Your task to perform on an android device: remove spam from my inbox in the gmail app Image 0: 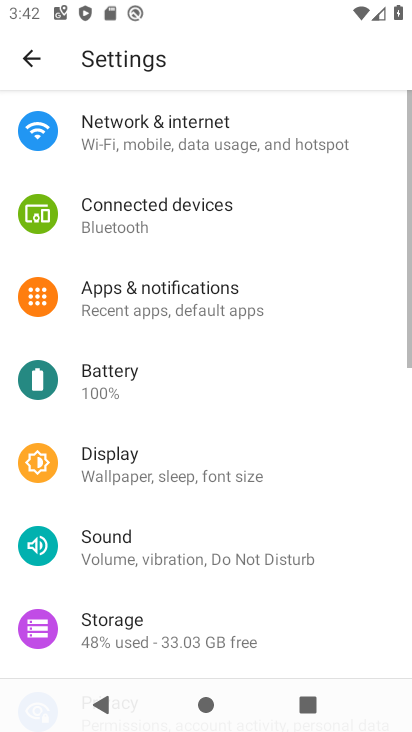
Step 0: press home button
Your task to perform on an android device: remove spam from my inbox in the gmail app Image 1: 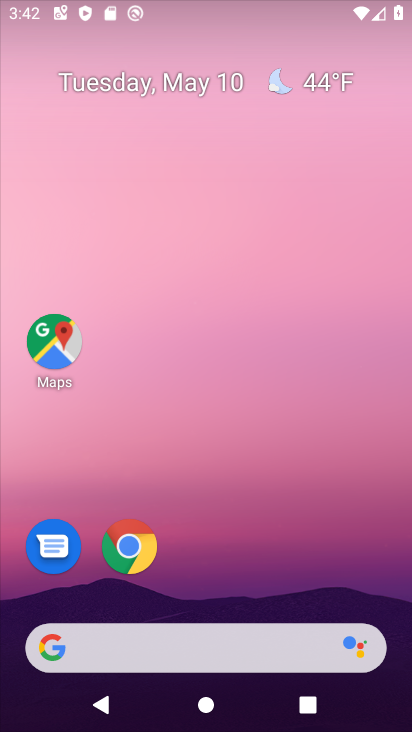
Step 1: drag from (198, 551) to (296, 42)
Your task to perform on an android device: remove spam from my inbox in the gmail app Image 2: 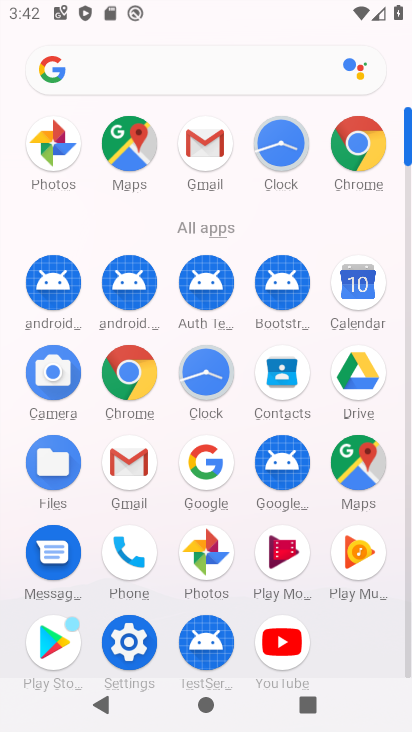
Step 2: click (191, 131)
Your task to perform on an android device: remove spam from my inbox in the gmail app Image 3: 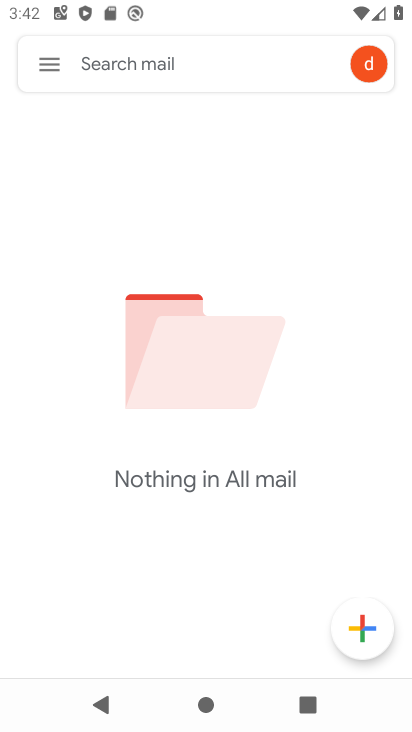
Step 3: click (35, 55)
Your task to perform on an android device: remove spam from my inbox in the gmail app Image 4: 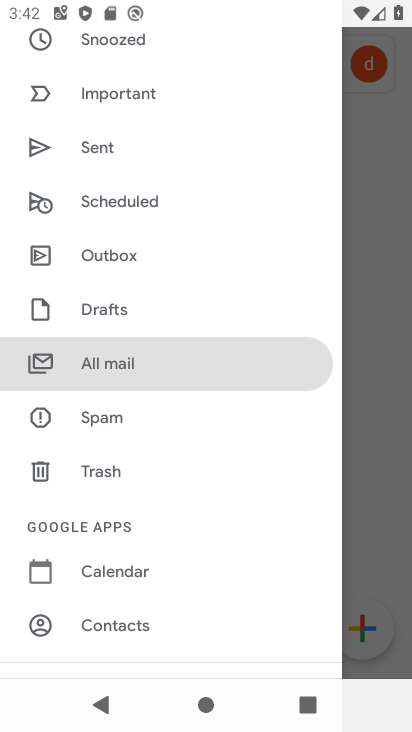
Step 4: click (111, 418)
Your task to perform on an android device: remove spam from my inbox in the gmail app Image 5: 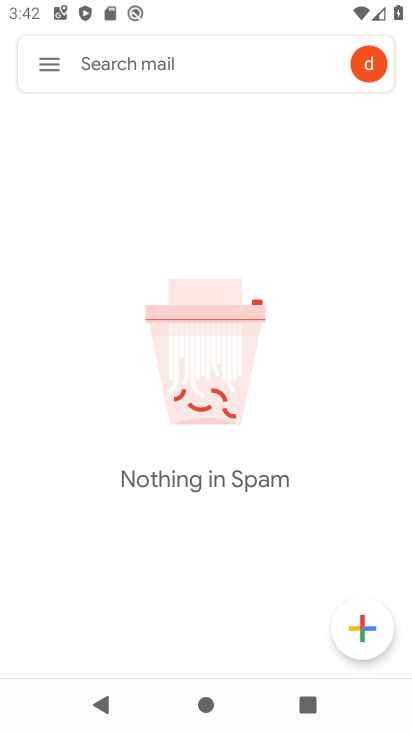
Step 5: task complete